Your task to perform on an android device: Show me productivity apps on the Play Store Image 0: 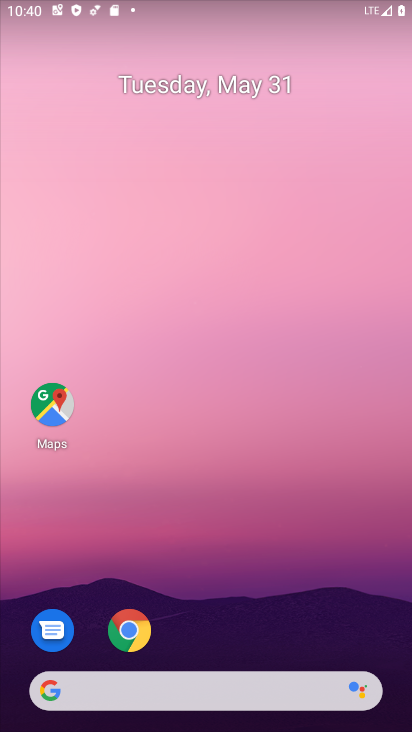
Step 0: drag from (237, 649) to (255, 135)
Your task to perform on an android device: Show me productivity apps on the Play Store Image 1: 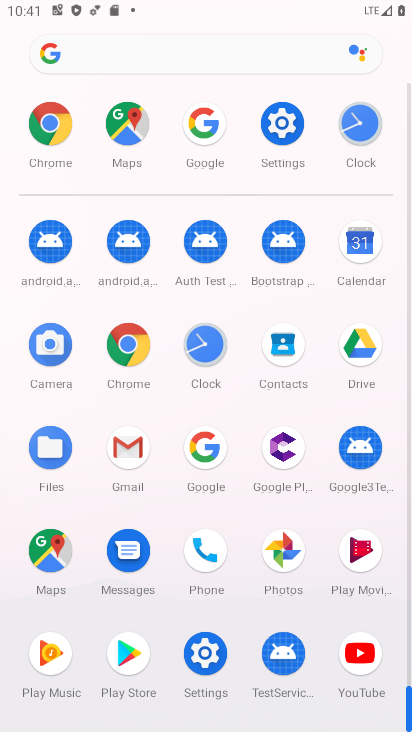
Step 1: click (126, 667)
Your task to perform on an android device: Show me productivity apps on the Play Store Image 2: 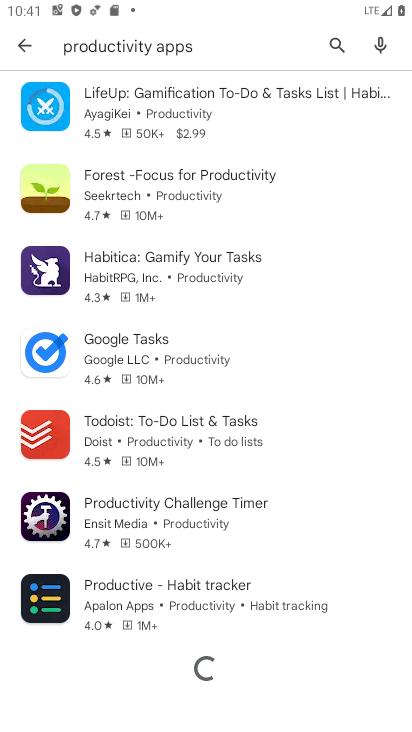
Step 2: task complete